Your task to perform on an android device: visit the assistant section in the google photos Image 0: 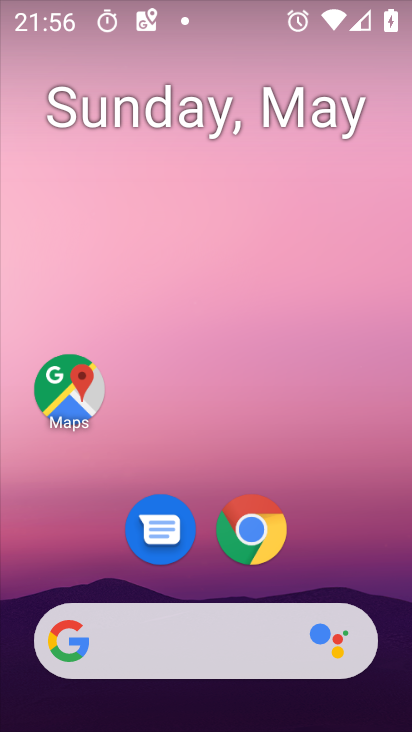
Step 0: drag from (380, 604) to (374, 8)
Your task to perform on an android device: visit the assistant section in the google photos Image 1: 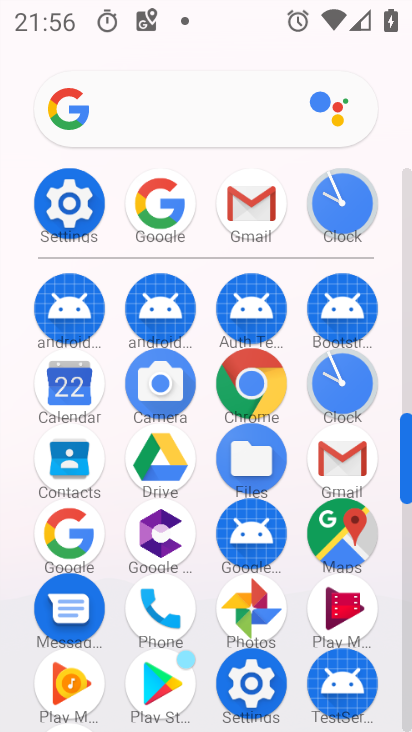
Step 1: click (271, 609)
Your task to perform on an android device: visit the assistant section in the google photos Image 2: 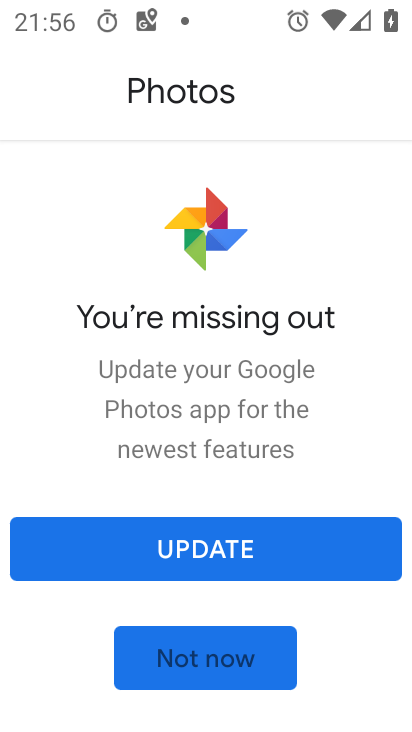
Step 2: click (193, 667)
Your task to perform on an android device: visit the assistant section in the google photos Image 3: 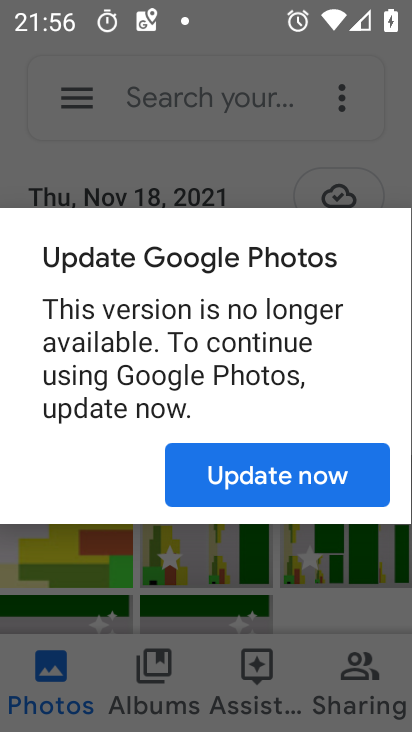
Step 3: click (276, 478)
Your task to perform on an android device: visit the assistant section in the google photos Image 4: 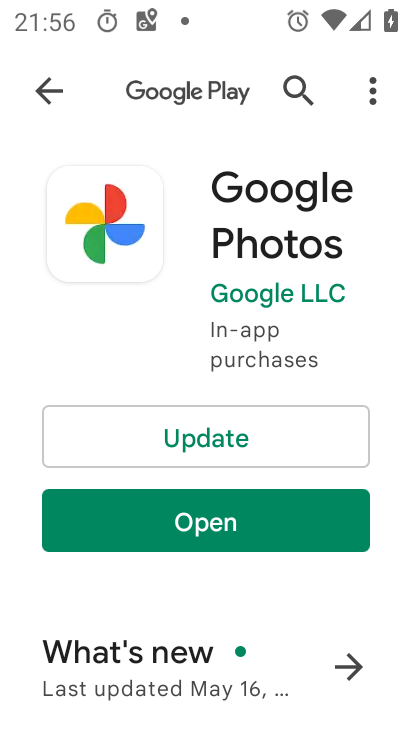
Step 4: click (209, 534)
Your task to perform on an android device: visit the assistant section in the google photos Image 5: 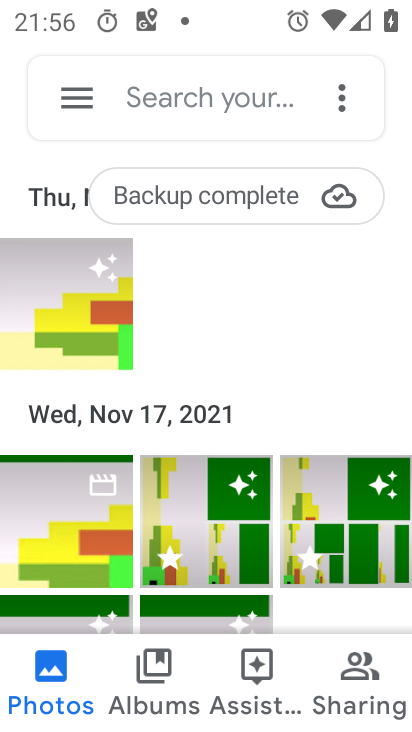
Step 5: click (256, 693)
Your task to perform on an android device: visit the assistant section in the google photos Image 6: 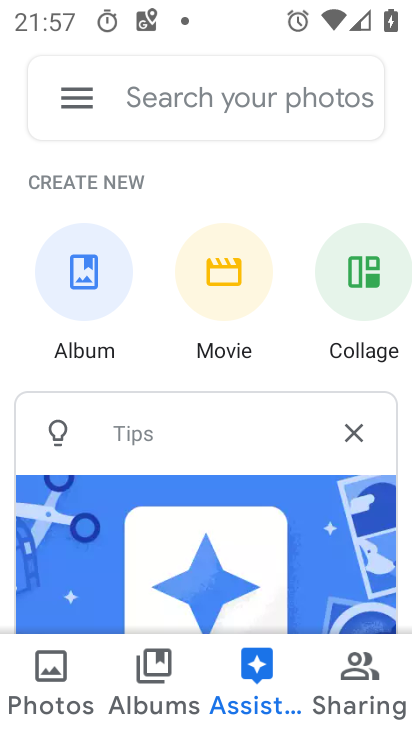
Step 6: task complete